Your task to perform on an android device: turn pop-ups off in chrome Image 0: 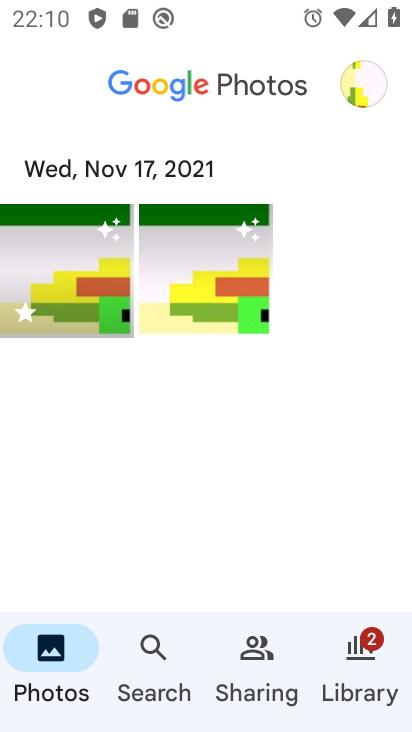
Step 0: press home button
Your task to perform on an android device: turn pop-ups off in chrome Image 1: 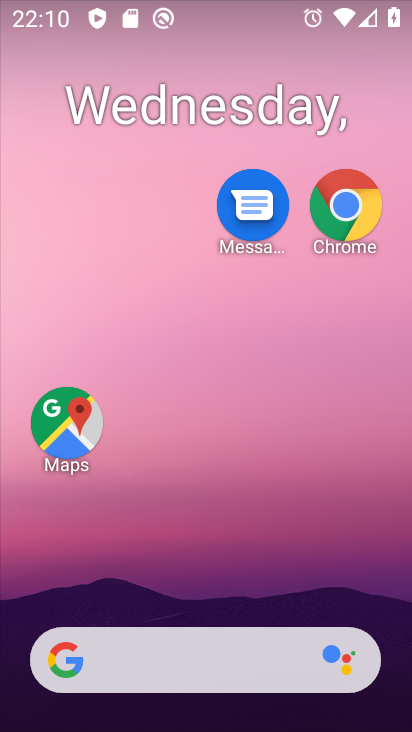
Step 1: click (353, 192)
Your task to perform on an android device: turn pop-ups off in chrome Image 2: 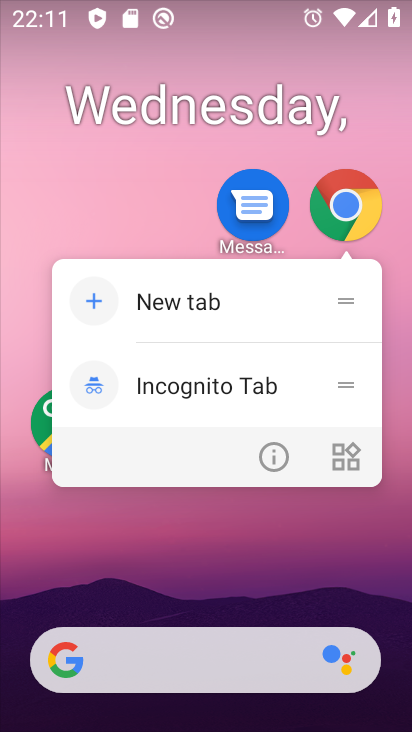
Step 2: click (278, 455)
Your task to perform on an android device: turn pop-ups off in chrome Image 3: 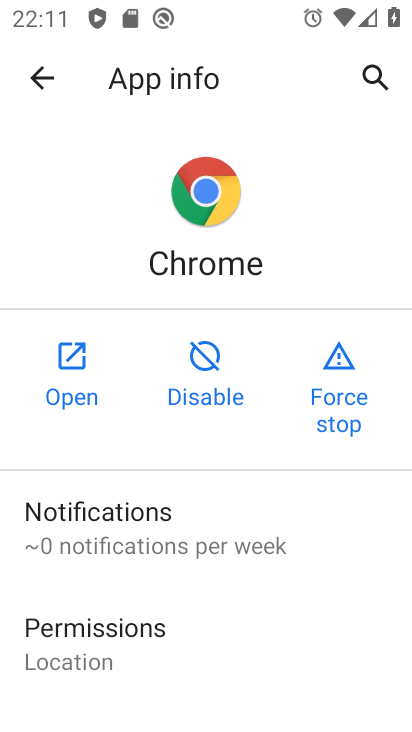
Step 3: click (63, 367)
Your task to perform on an android device: turn pop-ups off in chrome Image 4: 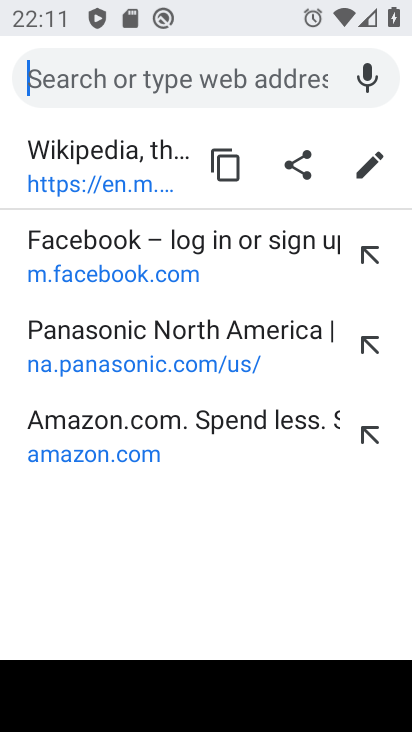
Step 4: press back button
Your task to perform on an android device: turn pop-ups off in chrome Image 5: 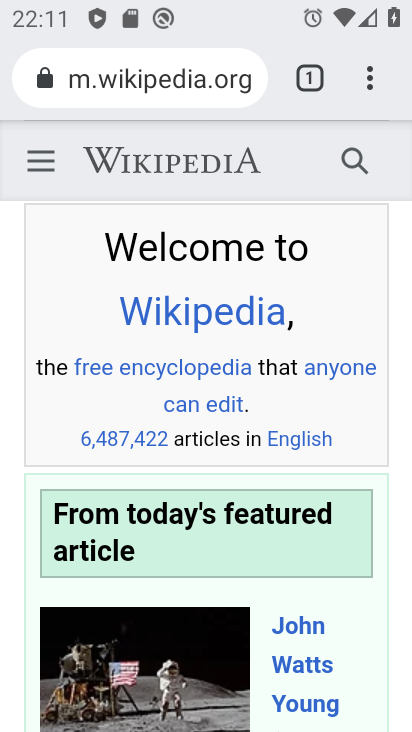
Step 5: drag from (370, 75) to (156, 610)
Your task to perform on an android device: turn pop-ups off in chrome Image 6: 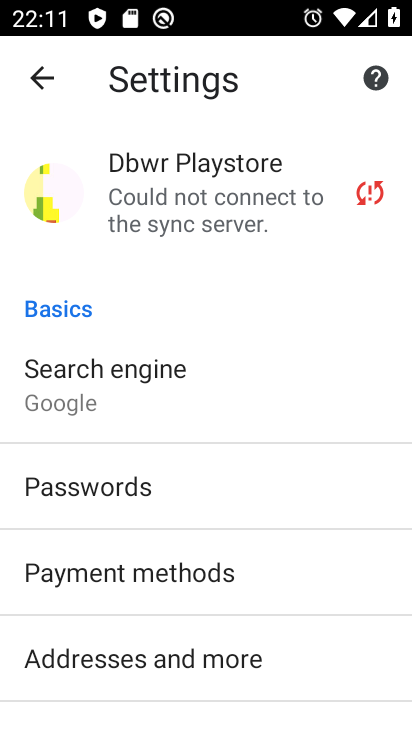
Step 6: drag from (224, 569) to (320, 49)
Your task to perform on an android device: turn pop-ups off in chrome Image 7: 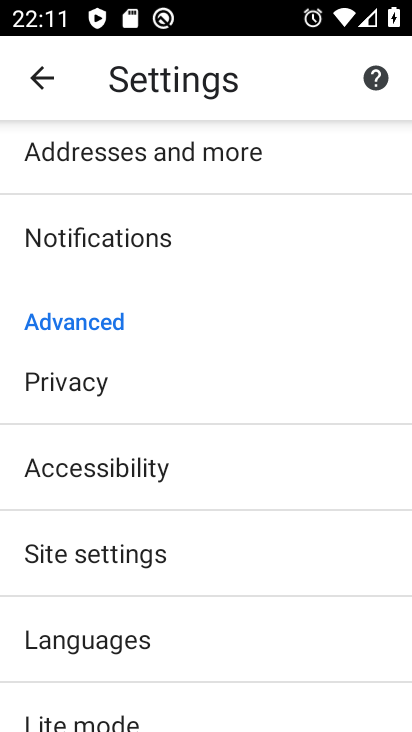
Step 7: drag from (187, 562) to (236, 178)
Your task to perform on an android device: turn pop-ups off in chrome Image 8: 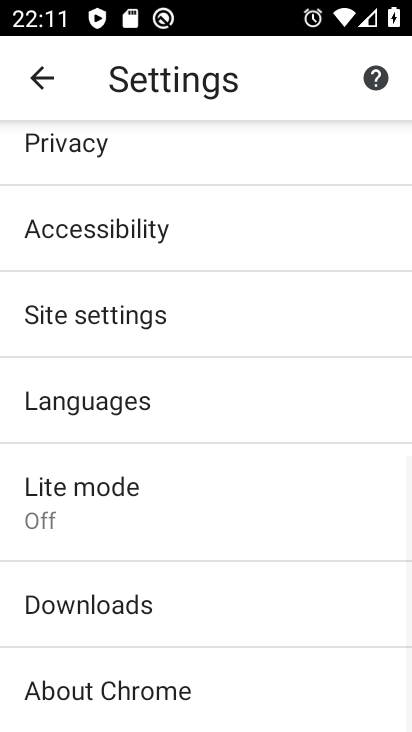
Step 8: click (179, 327)
Your task to perform on an android device: turn pop-ups off in chrome Image 9: 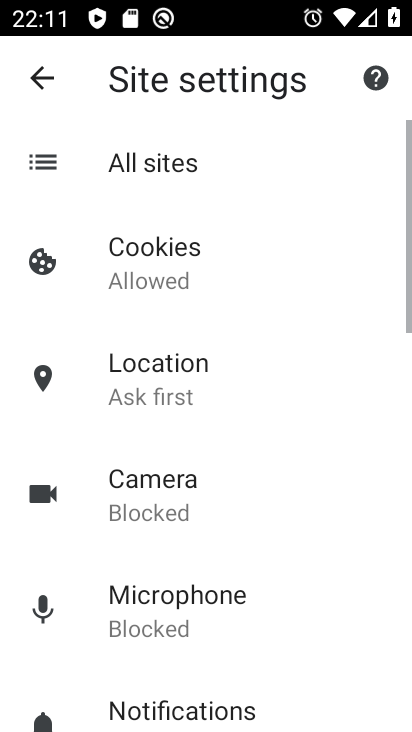
Step 9: drag from (249, 584) to (278, 102)
Your task to perform on an android device: turn pop-ups off in chrome Image 10: 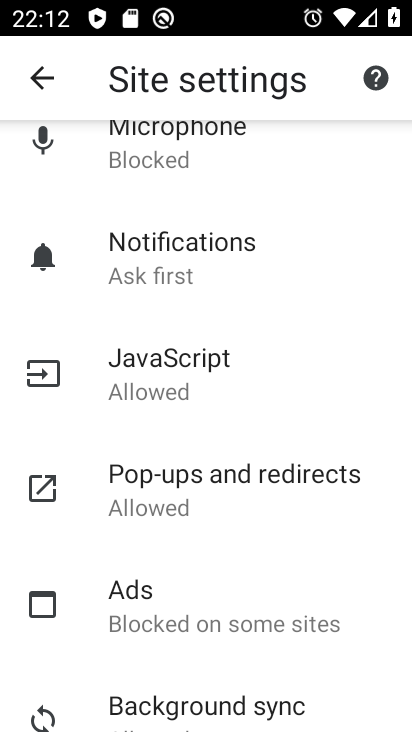
Step 10: click (255, 480)
Your task to perform on an android device: turn pop-ups off in chrome Image 11: 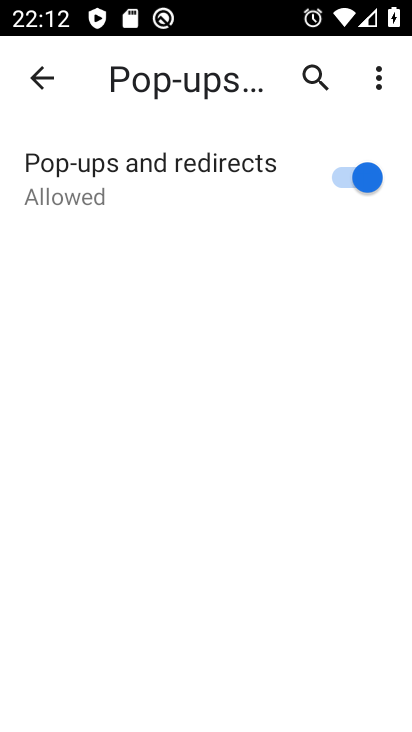
Step 11: click (349, 196)
Your task to perform on an android device: turn pop-ups off in chrome Image 12: 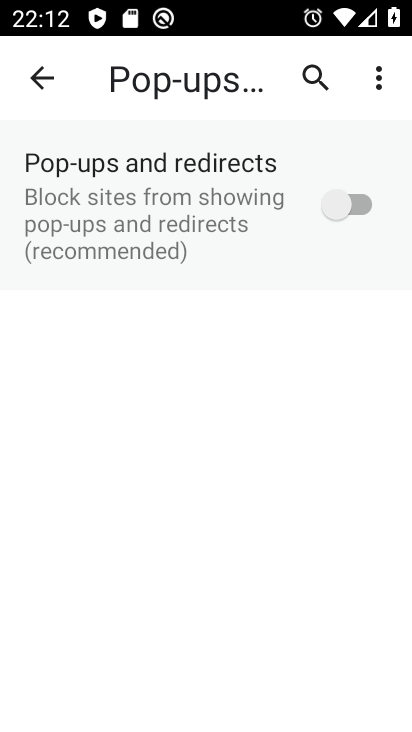
Step 12: task complete